Your task to perform on an android device: Show me the alarms in the clock app Image 0: 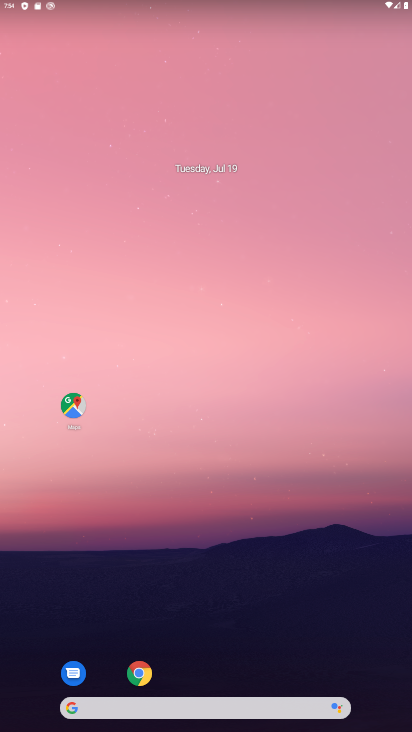
Step 0: drag from (292, 482) to (311, 121)
Your task to perform on an android device: Show me the alarms in the clock app Image 1: 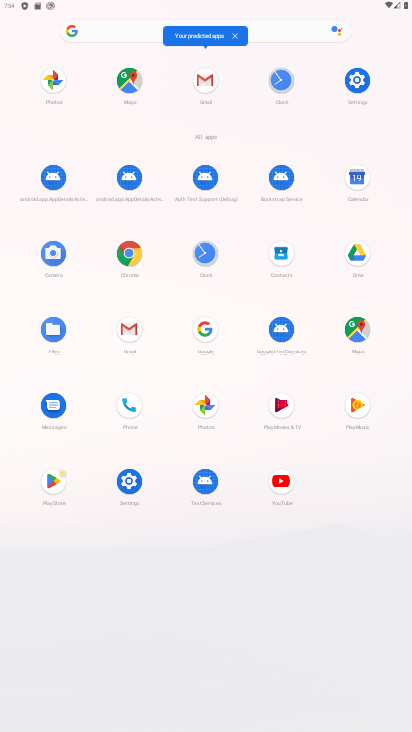
Step 1: click (281, 71)
Your task to perform on an android device: Show me the alarms in the clock app Image 2: 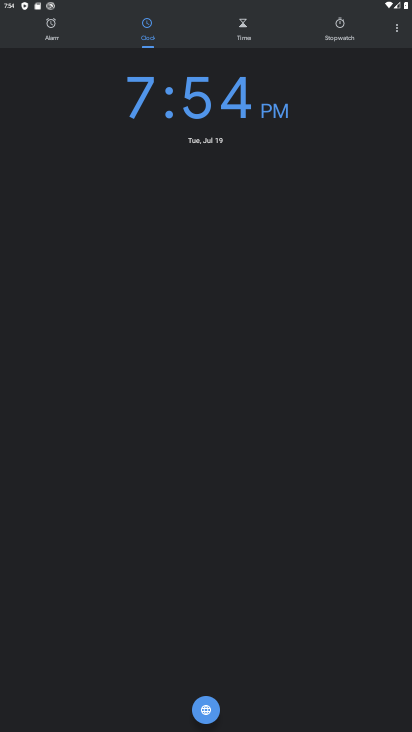
Step 2: click (58, 29)
Your task to perform on an android device: Show me the alarms in the clock app Image 3: 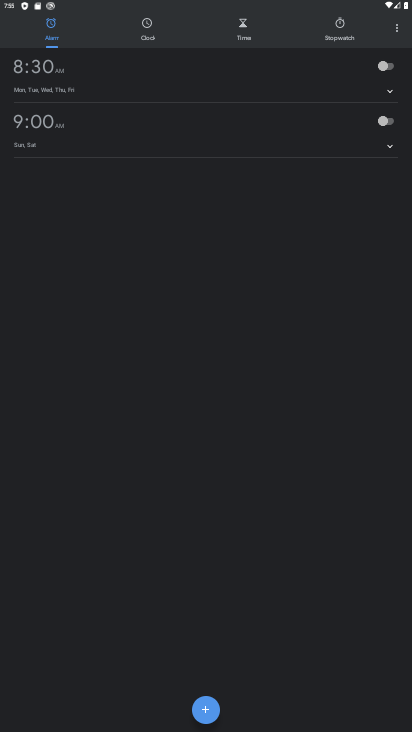
Step 3: click (381, 75)
Your task to perform on an android device: Show me the alarms in the clock app Image 4: 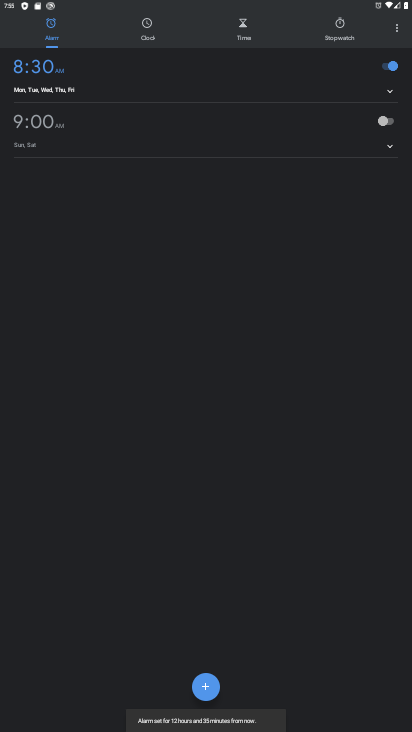
Step 4: task complete